Your task to perform on an android device: turn on sleep mode Image 0: 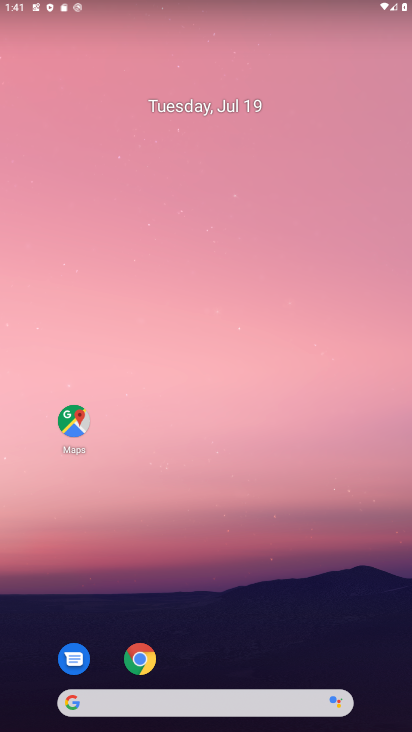
Step 0: drag from (213, 637) to (231, 7)
Your task to perform on an android device: turn on sleep mode Image 1: 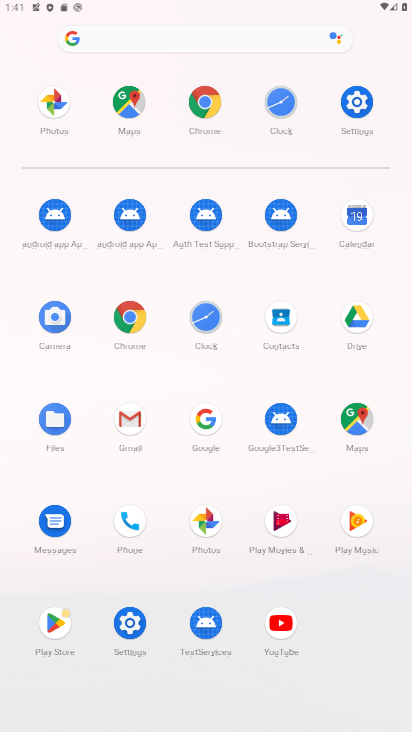
Step 1: click (120, 637)
Your task to perform on an android device: turn on sleep mode Image 2: 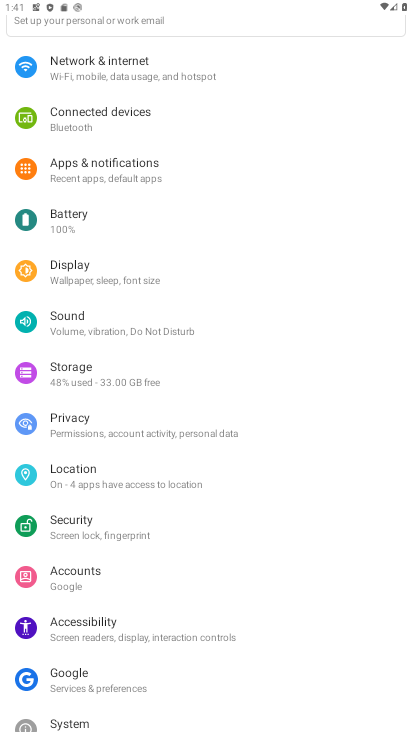
Step 2: click (76, 274)
Your task to perform on an android device: turn on sleep mode Image 3: 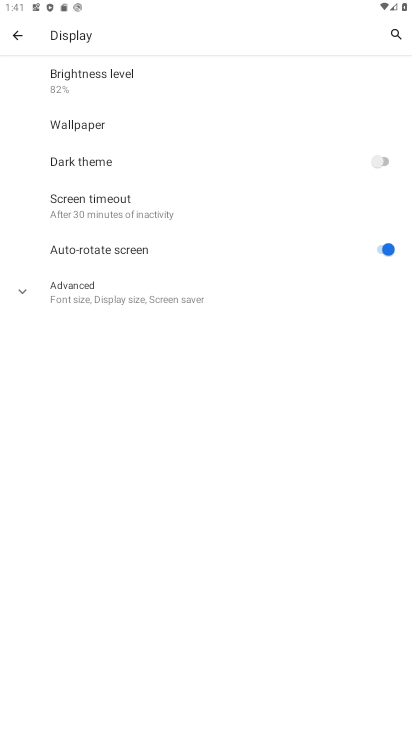
Step 3: task complete